Your task to perform on an android device: Search for "apple airpods" on ebay.com, select the first entry, and add it to the cart. Image 0: 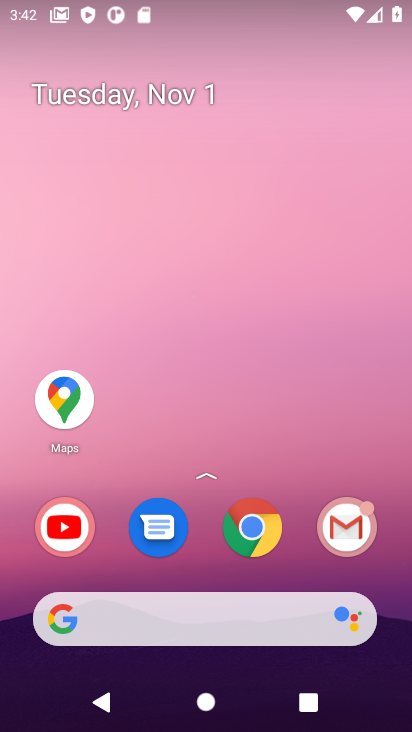
Step 0: press home button
Your task to perform on an android device: Search for "apple airpods" on ebay.com, select the first entry, and add it to the cart. Image 1: 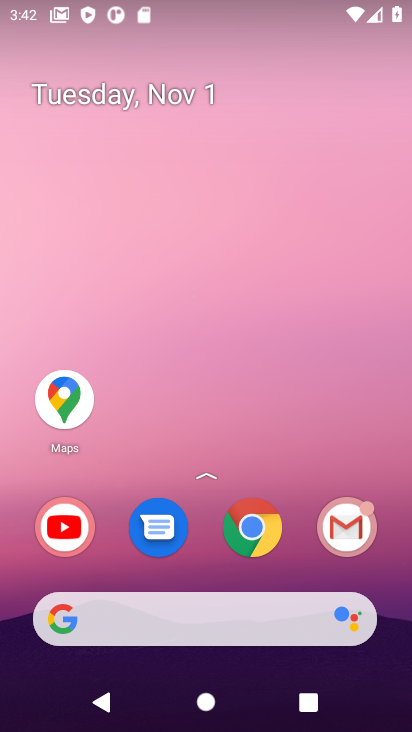
Step 1: click (194, 616)
Your task to perform on an android device: Search for "apple airpods" on ebay.com, select the first entry, and add it to the cart. Image 2: 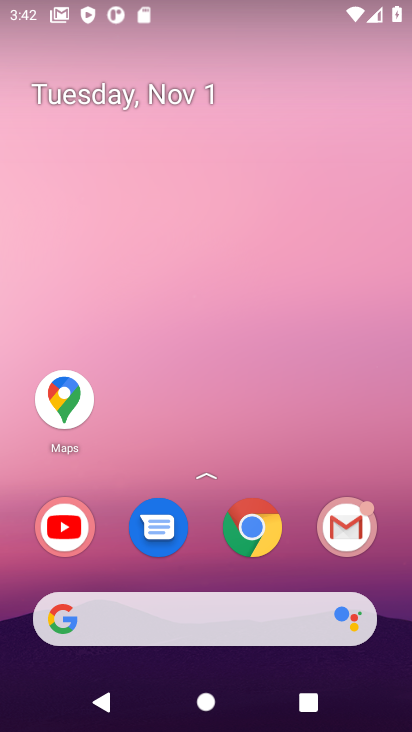
Step 2: click (177, 624)
Your task to perform on an android device: Search for "apple airpods" on ebay.com, select the first entry, and add it to the cart. Image 3: 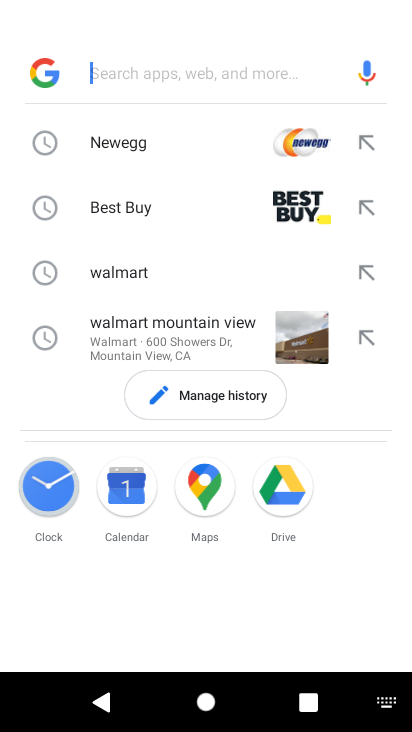
Step 3: type "ebay.com,"
Your task to perform on an android device: Search for "apple airpods" on ebay.com, select the first entry, and add it to the cart. Image 4: 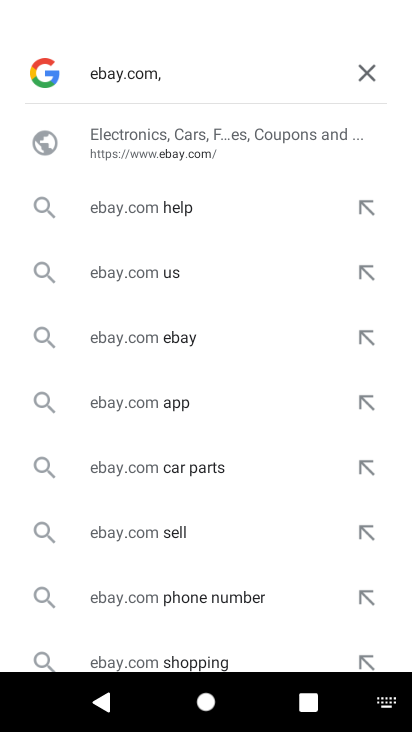
Step 4: click (221, 138)
Your task to perform on an android device: Search for "apple airpods" on ebay.com, select the first entry, and add it to the cart. Image 5: 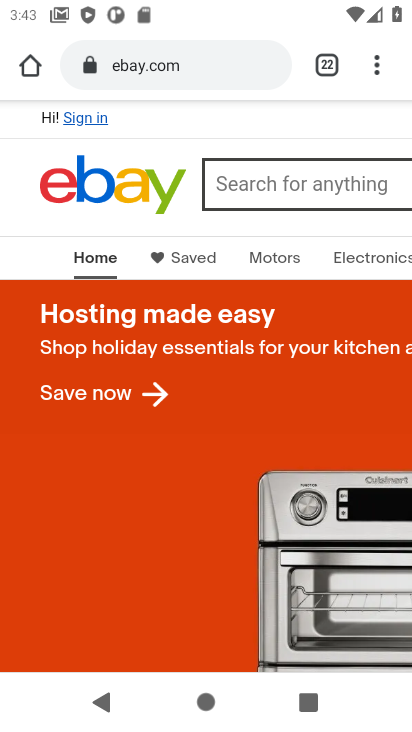
Step 5: click (287, 199)
Your task to perform on an android device: Search for "apple airpods" on ebay.com, select the first entry, and add it to the cart. Image 6: 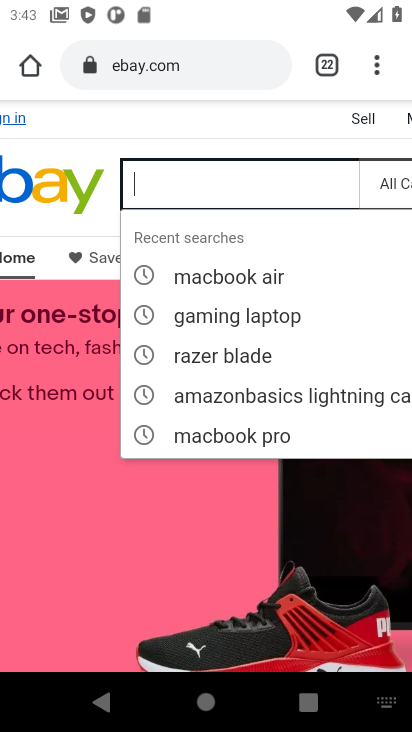
Step 6: type "apple airpods""
Your task to perform on an android device: Search for "apple airpods" on ebay.com, select the first entry, and add it to the cart. Image 7: 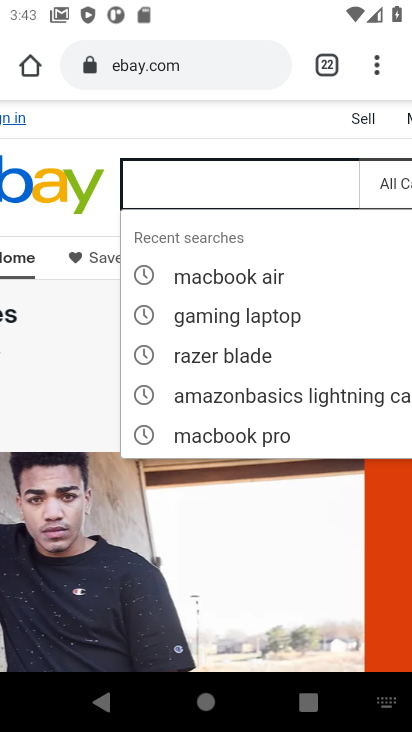
Step 7: type "apple airpods""
Your task to perform on an android device: Search for "apple airpods" on ebay.com, select the first entry, and add it to the cart. Image 8: 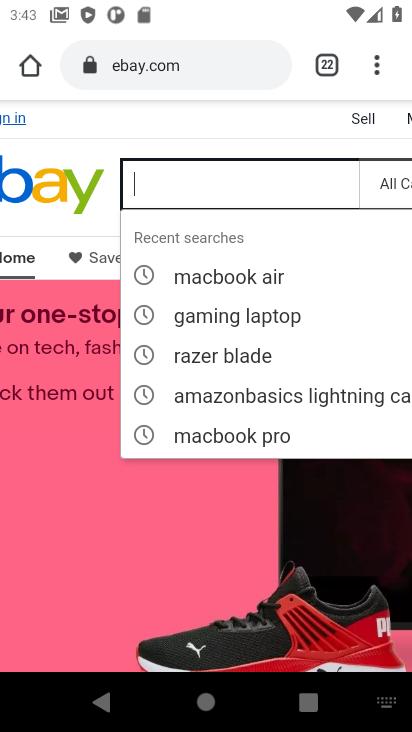
Step 8: click (144, 138)
Your task to perform on an android device: Search for "apple airpods" on ebay.com, select the first entry, and add it to the cart. Image 9: 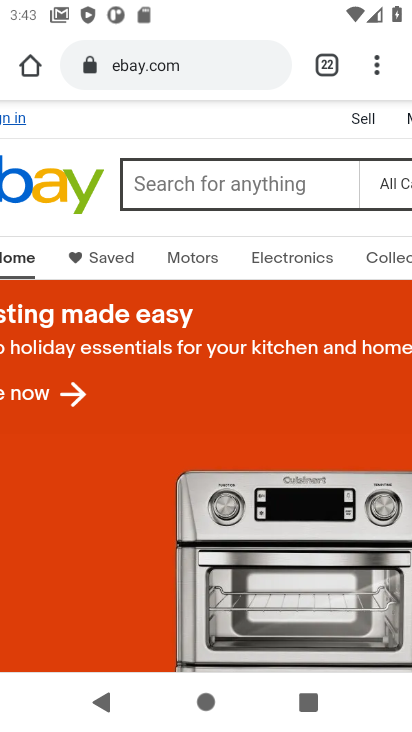
Step 9: click (272, 193)
Your task to perform on an android device: Search for "apple airpods" on ebay.com, select the first entry, and add it to the cart. Image 10: 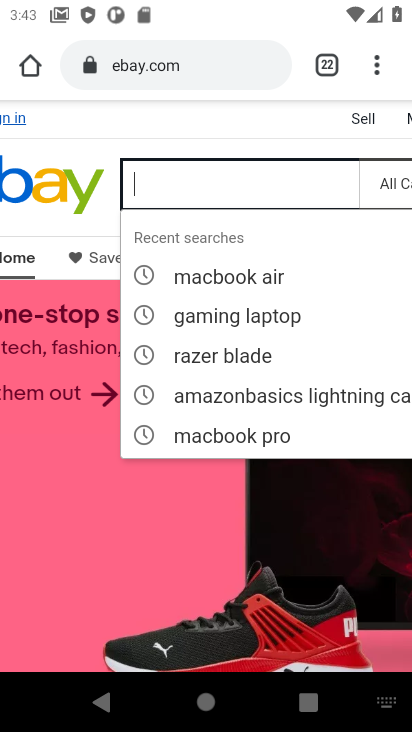
Step 10: type "apple airpods"
Your task to perform on an android device: Search for "apple airpods" on ebay.com, select the first entry, and add it to the cart. Image 11: 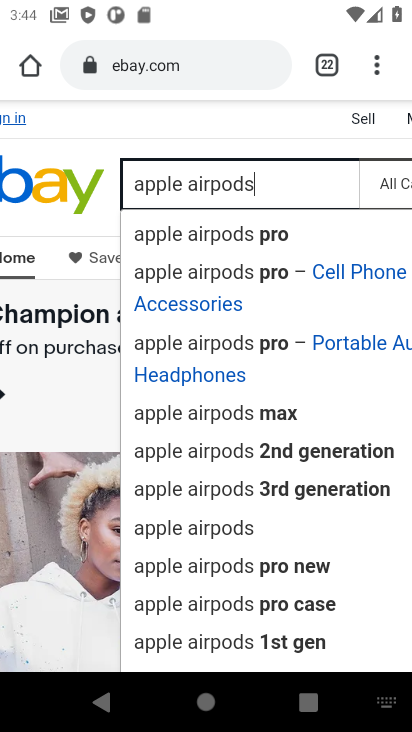
Step 11: click (226, 236)
Your task to perform on an android device: Search for "apple airpods" on ebay.com, select the first entry, and add it to the cart. Image 12: 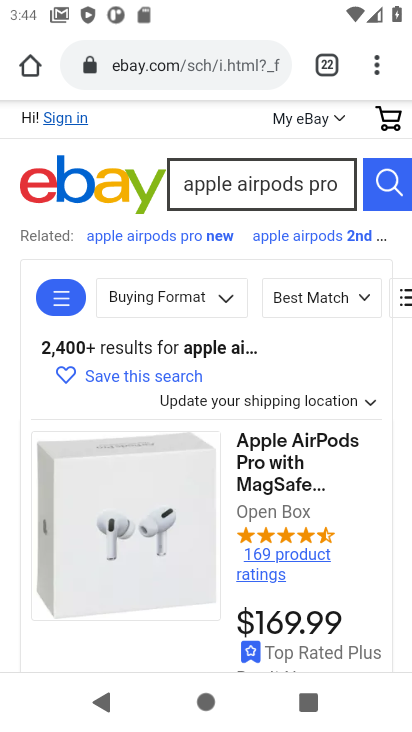
Step 12: click (262, 489)
Your task to perform on an android device: Search for "apple airpods" on ebay.com, select the first entry, and add it to the cart. Image 13: 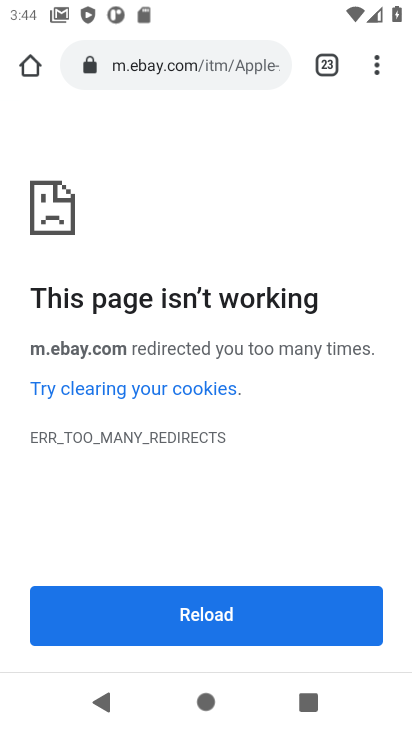
Step 13: task complete